Your task to perform on an android device: manage bookmarks in the chrome app Image 0: 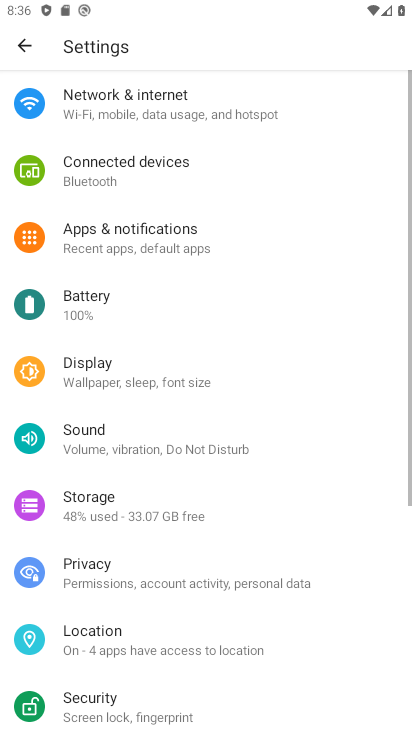
Step 0: press home button
Your task to perform on an android device: manage bookmarks in the chrome app Image 1: 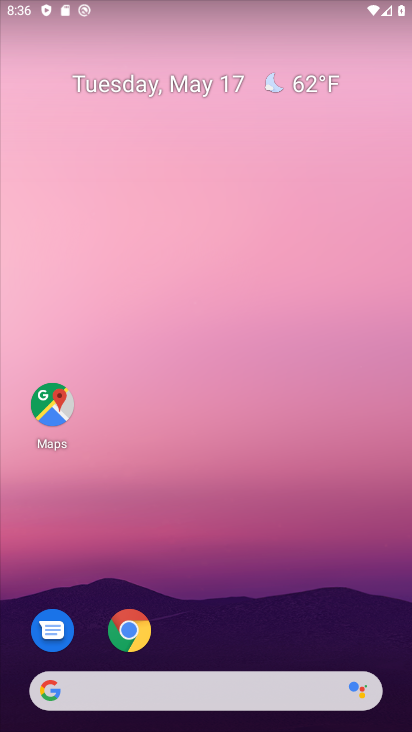
Step 1: click (125, 636)
Your task to perform on an android device: manage bookmarks in the chrome app Image 2: 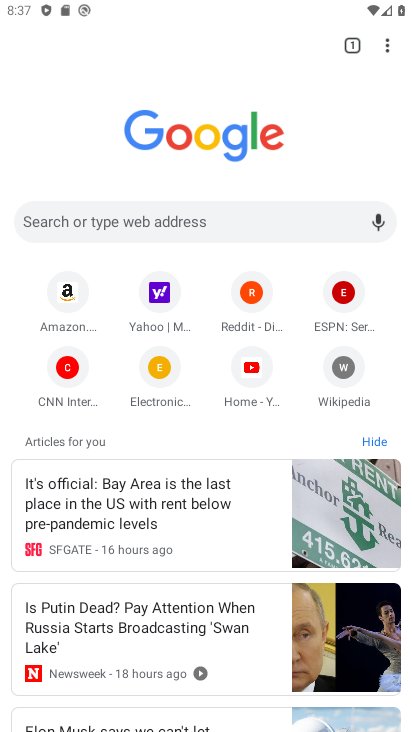
Step 2: click (388, 43)
Your task to perform on an android device: manage bookmarks in the chrome app Image 3: 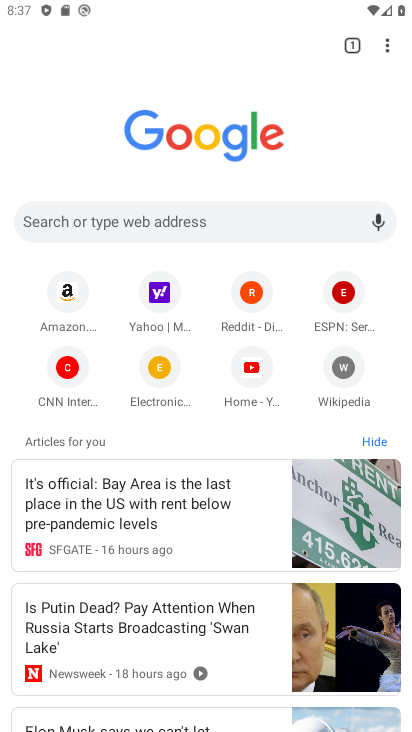
Step 3: click (388, 43)
Your task to perform on an android device: manage bookmarks in the chrome app Image 4: 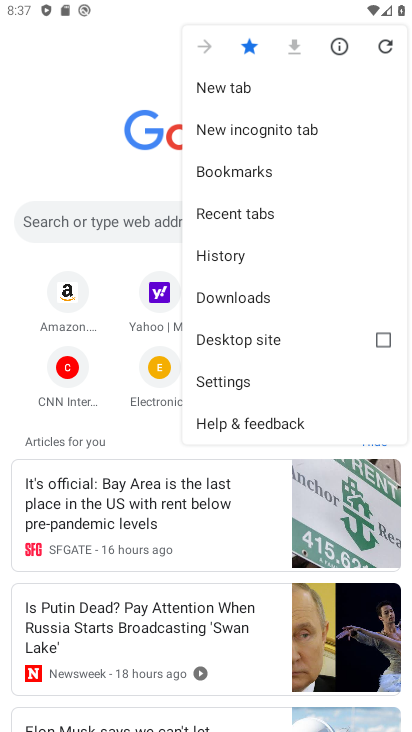
Step 4: click (242, 182)
Your task to perform on an android device: manage bookmarks in the chrome app Image 5: 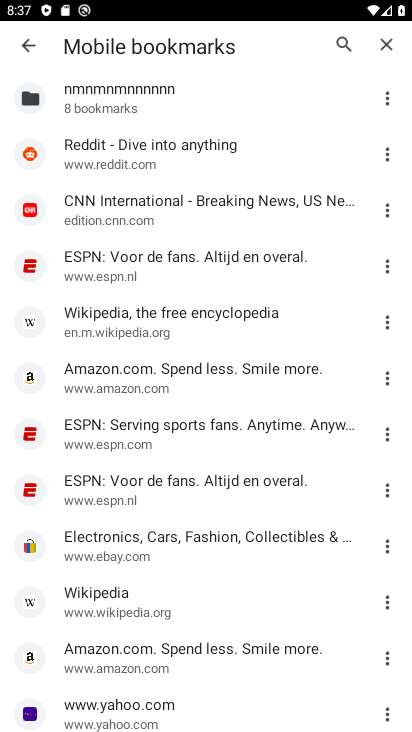
Step 5: click (392, 157)
Your task to perform on an android device: manage bookmarks in the chrome app Image 6: 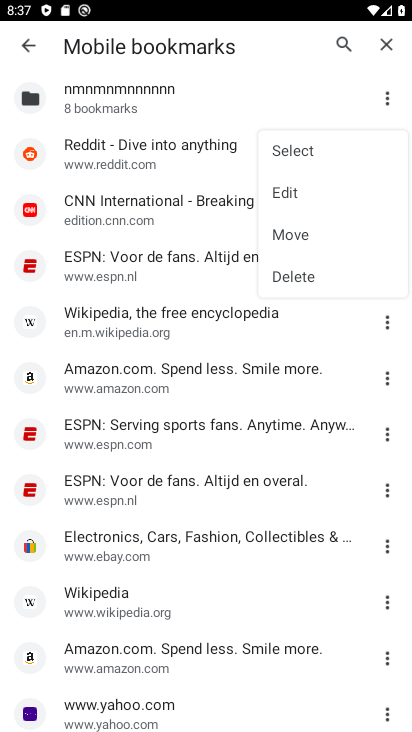
Step 6: click (310, 282)
Your task to perform on an android device: manage bookmarks in the chrome app Image 7: 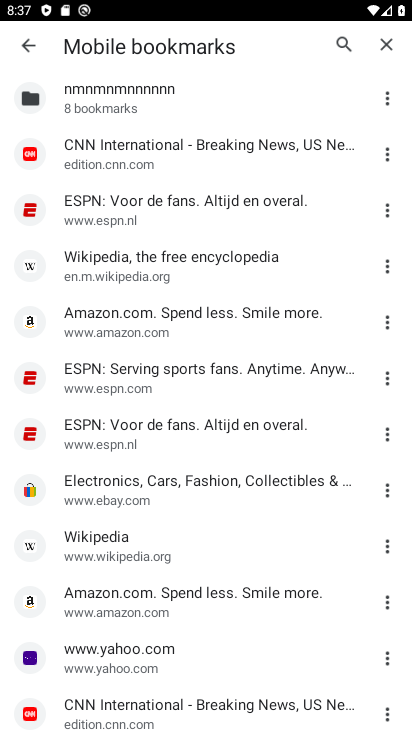
Step 7: task complete